Your task to perform on an android device: refresh tabs in the chrome app Image 0: 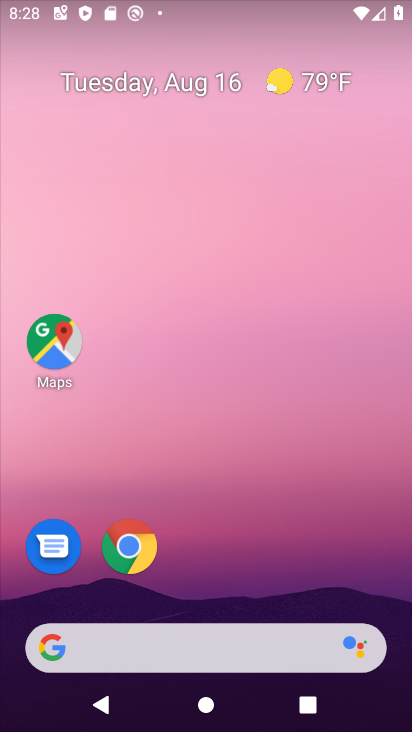
Step 0: click (128, 548)
Your task to perform on an android device: refresh tabs in the chrome app Image 1: 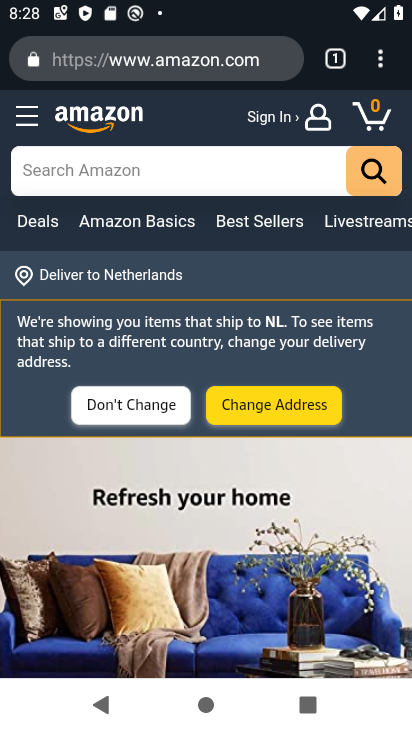
Step 1: click (378, 66)
Your task to perform on an android device: refresh tabs in the chrome app Image 2: 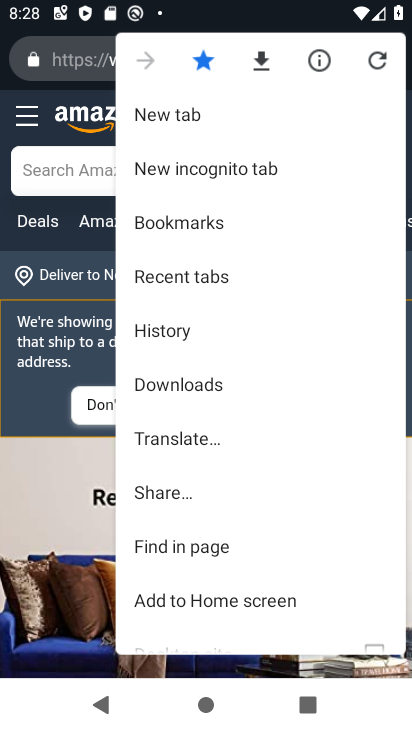
Step 2: click (379, 58)
Your task to perform on an android device: refresh tabs in the chrome app Image 3: 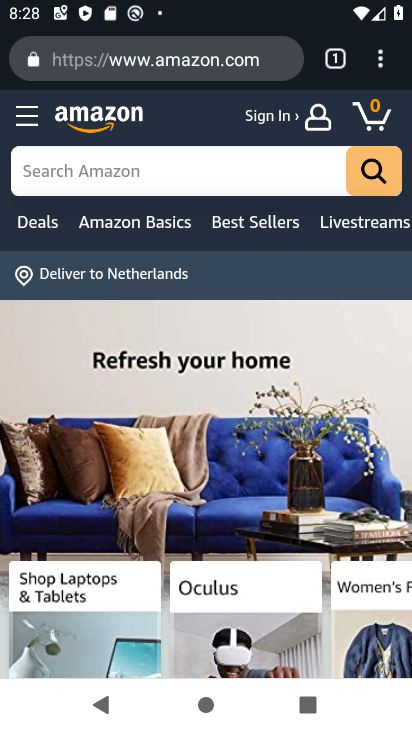
Step 3: task complete